Your task to perform on an android device: choose inbox layout in the gmail app Image 0: 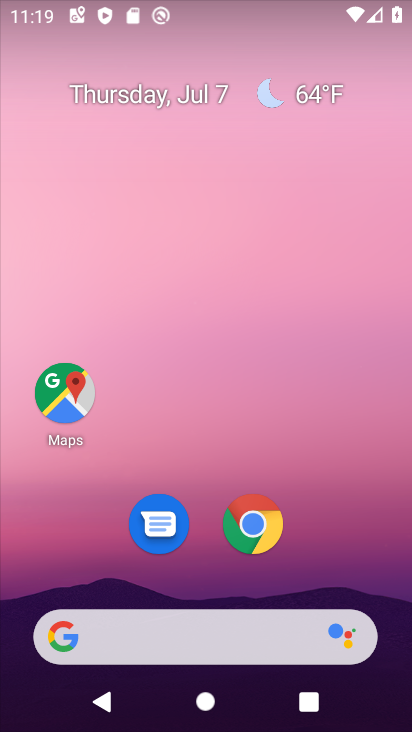
Step 0: drag from (213, 441) to (206, 21)
Your task to perform on an android device: choose inbox layout in the gmail app Image 1: 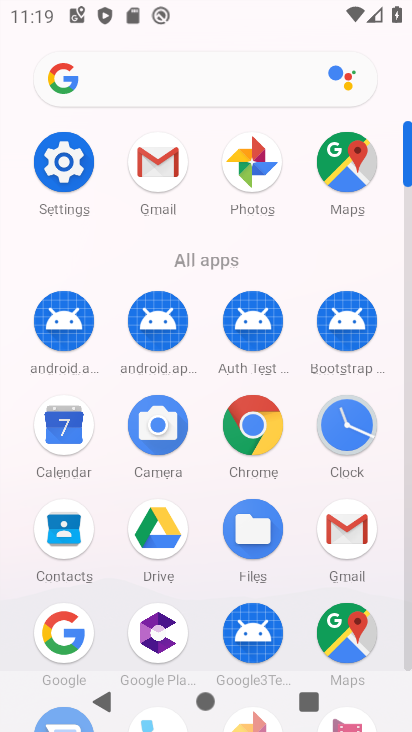
Step 1: click (158, 168)
Your task to perform on an android device: choose inbox layout in the gmail app Image 2: 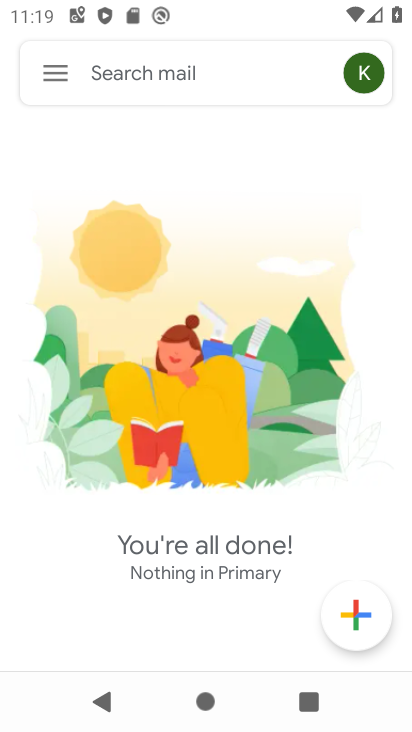
Step 2: click (58, 76)
Your task to perform on an android device: choose inbox layout in the gmail app Image 3: 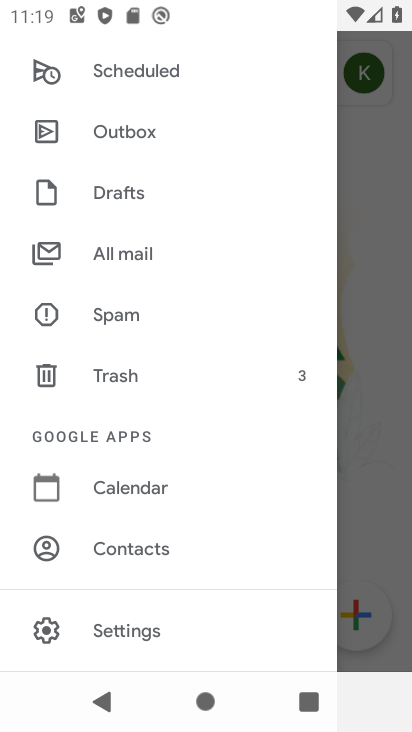
Step 3: click (115, 624)
Your task to perform on an android device: choose inbox layout in the gmail app Image 4: 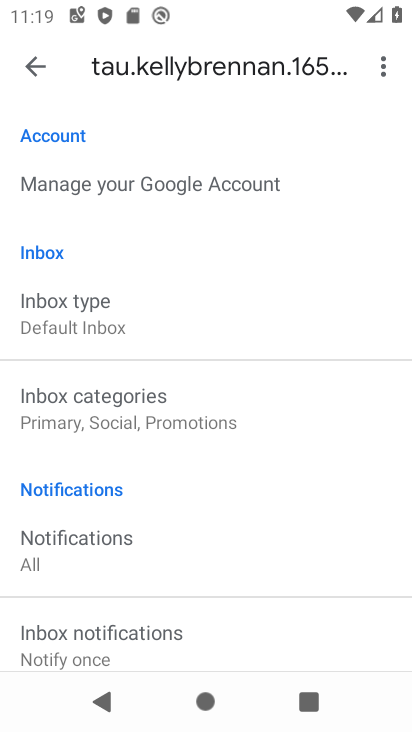
Step 4: click (93, 314)
Your task to perform on an android device: choose inbox layout in the gmail app Image 5: 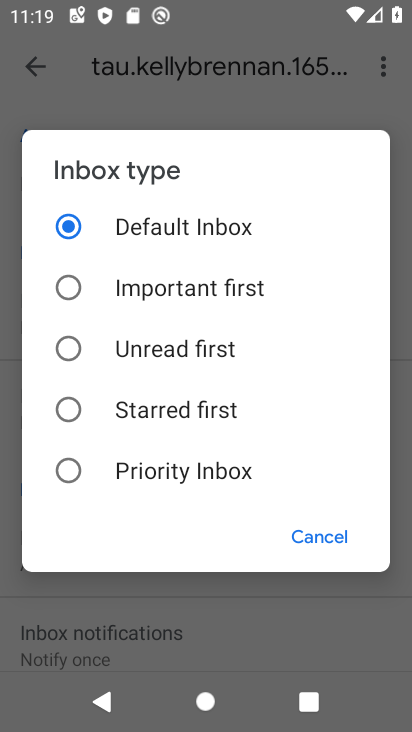
Step 5: click (74, 288)
Your task to perform on an android device: choose inbox layout in the gmail app Image 6: 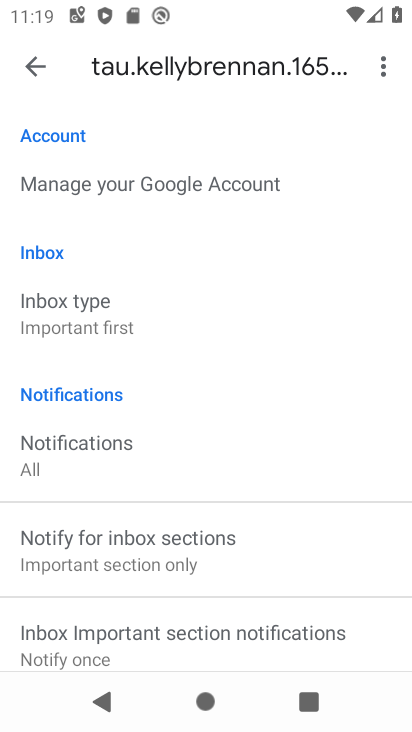
Step 6: task complete